Your task to perform on an android device: change the upload size in google photos Image 0: 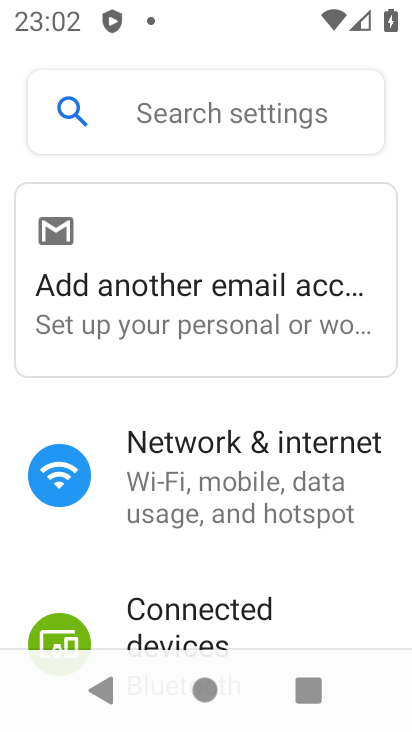
Step 0: drag from (246, 538) to (273, 42)
Your task to perform on an android device: change the upload size in google photos Image 1: 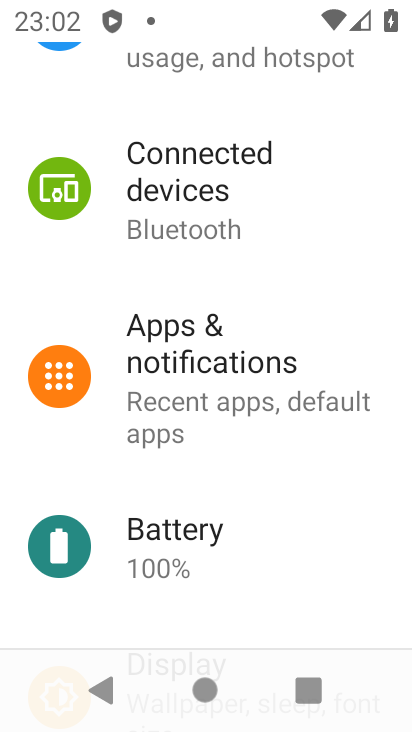
Step 1: drag from (206, 536) to (280, 356)
Your task to perform on an android device: change the upload size in google photos Image 2: 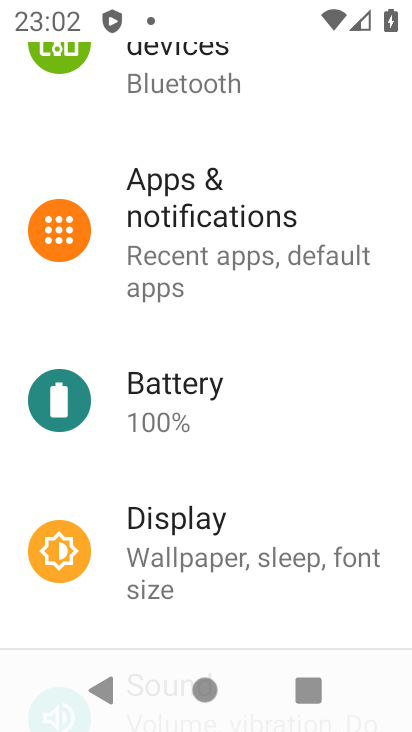
Step 2: drag from (187, 606) to (300, 263)
Your task to perform on an android device: change the upload size in google photos Image 3: 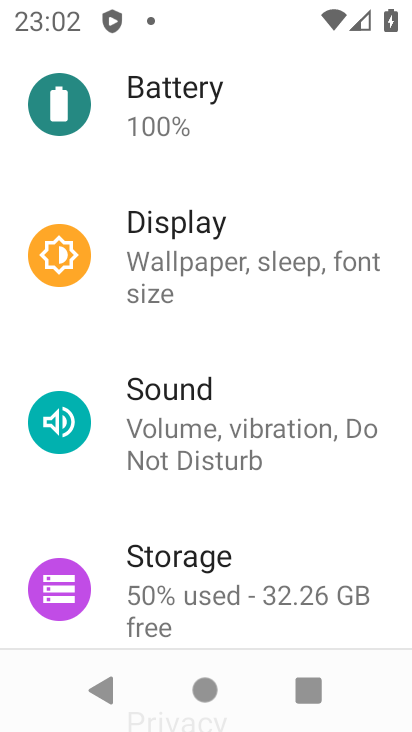
Step 3: press home button
Your task to perform on an android device: change the upload size in google photos Image 4: 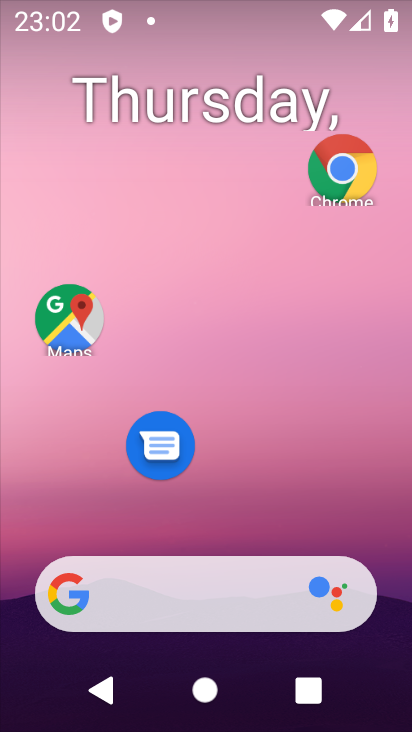
Step 4: drag from (203, 513) to (203, 180)
Your task to perform on an android device: change the upload size in google photos Image 5: 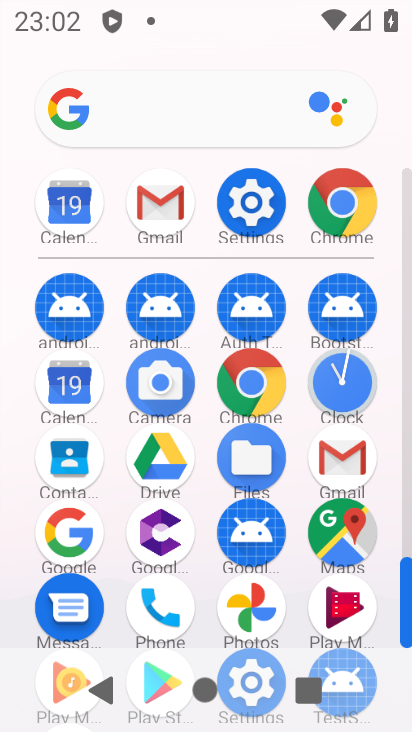
Step 5: drag from (212, 630) to (204, 347)
Your task to perform on an android device: change the upload size in google photos Image 6: 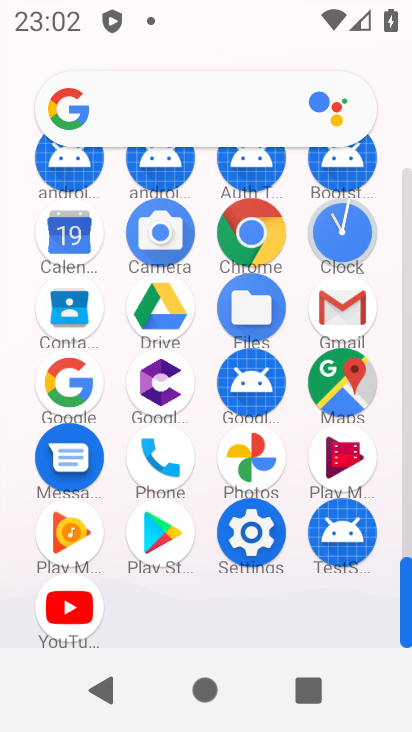
Step 6: click (266, 460)
Your task to perform on an android device: change the upload size in google photos Image 7: 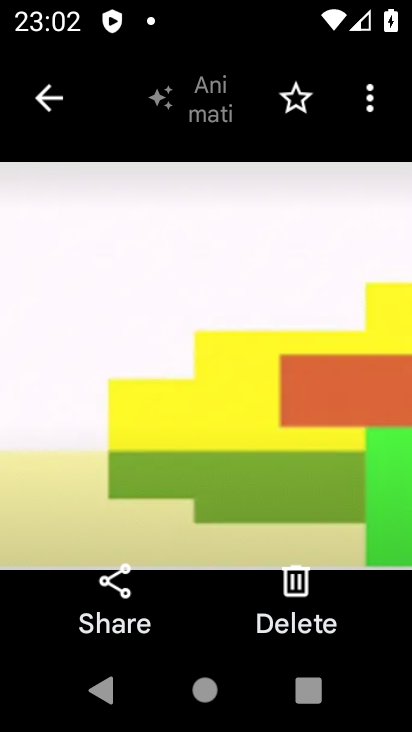
Step 7: drag from (208, 525) to (215, 198)
Your task to perform on an android device: change the upload size in google photos Image 8: 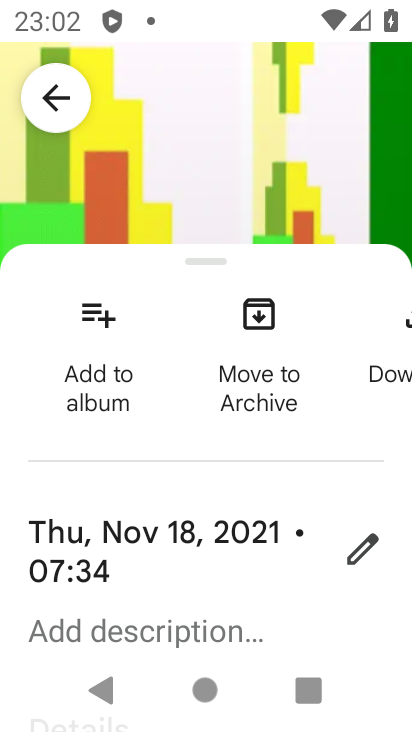
Step 8: press back button
Your task to perform on an android device: change the upload size in google photos Image 9: 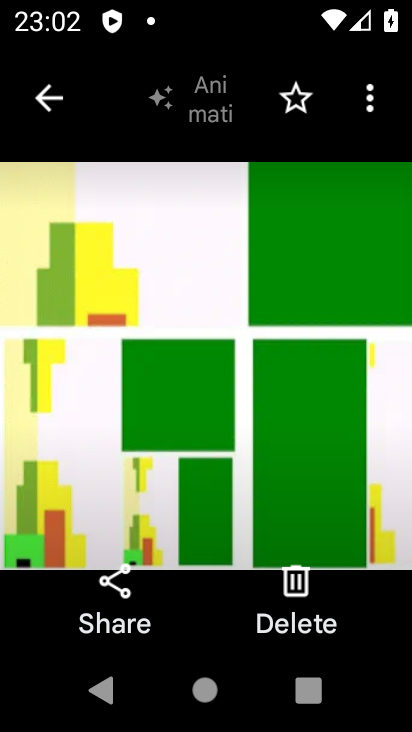
Step 9: press back button
Your task to perform on an android device: change the upload size in google photos Image 10: 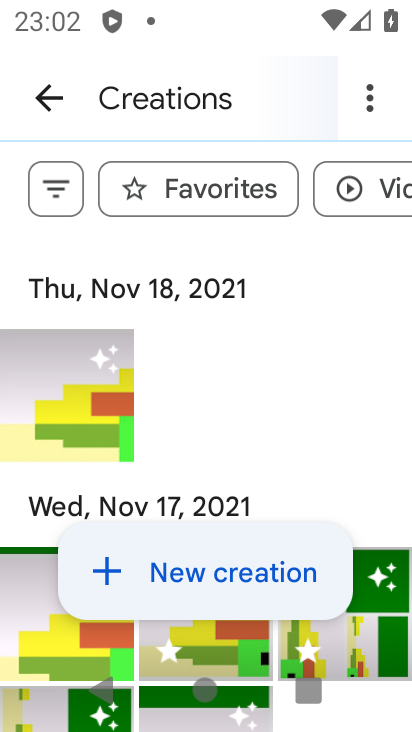
Step 10: drag from (216, 546) to (304, 3)
Your task to perform on an android device: change the upload size in google photos Image 11: 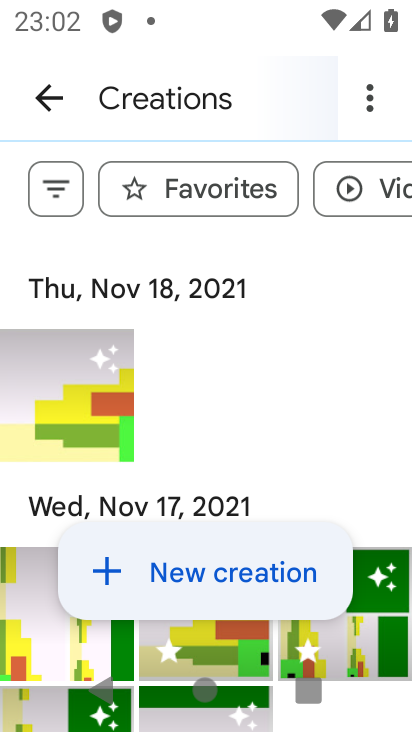
Step 11: drag from (251, 451) to (296, 95)
Your task to perform on an android device: change the upload size in google photos Image 12: 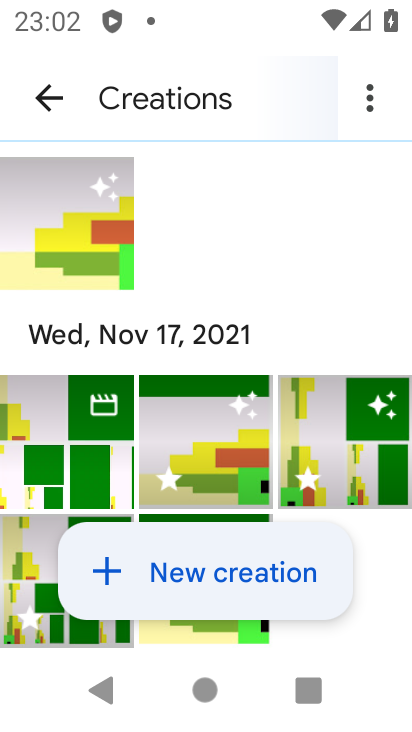
Step 12: drag from (239, 495) to (315, 145)
Your task to perform on an android device: change the upload size in google photos Image 13: 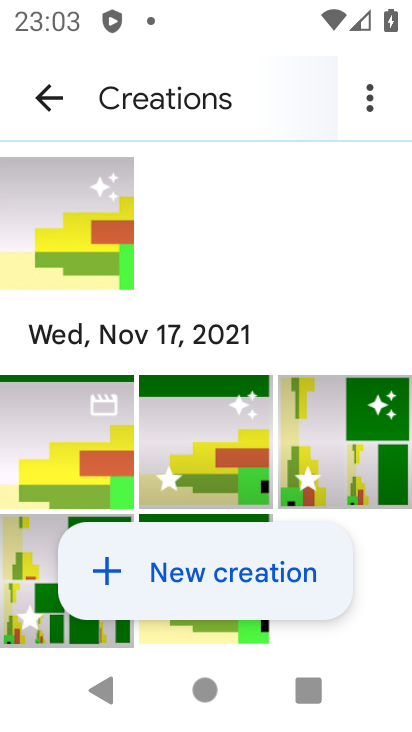
Step 13: click (54, 93)
Your task to perform on an android device: change the upload size in google photos Image 14: 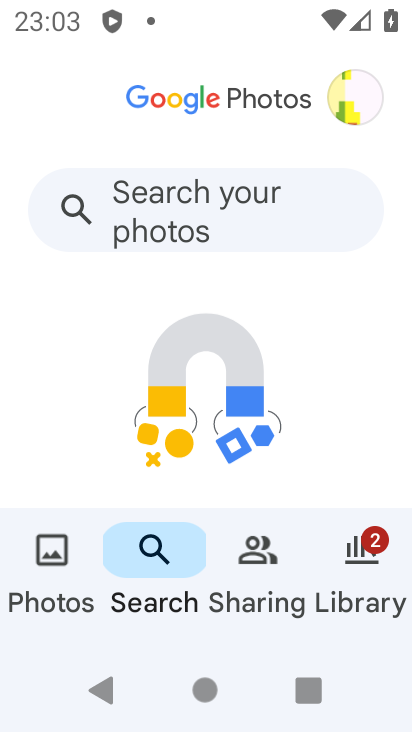
Step 14: click (355, 562)
Your task to perform on an android device: change the upload size in google photos Image 15: 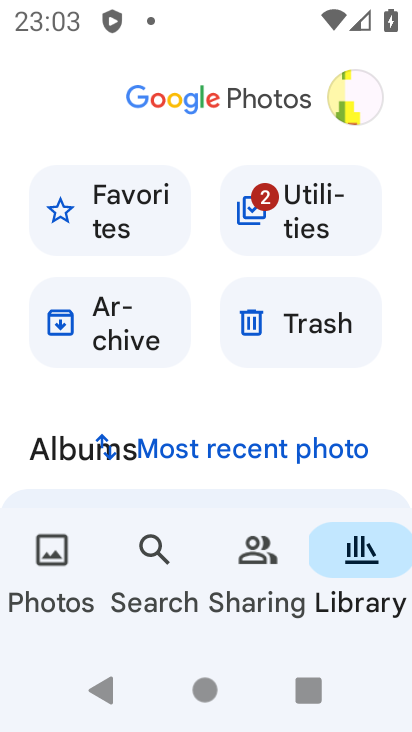
Step 15: click (352, 120)
Your task to perform on an android device: change the upload size in google photos Image 16: 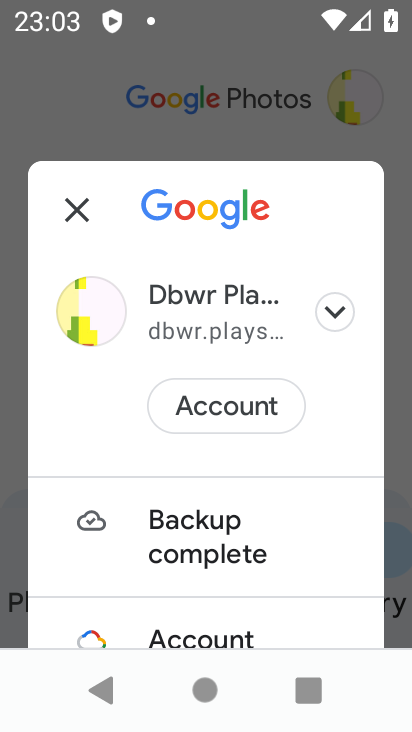
Step 16: drag from (197, 555) to (252, 190)
Your task to perform on an android device: change the upload size in google photos Image 17: 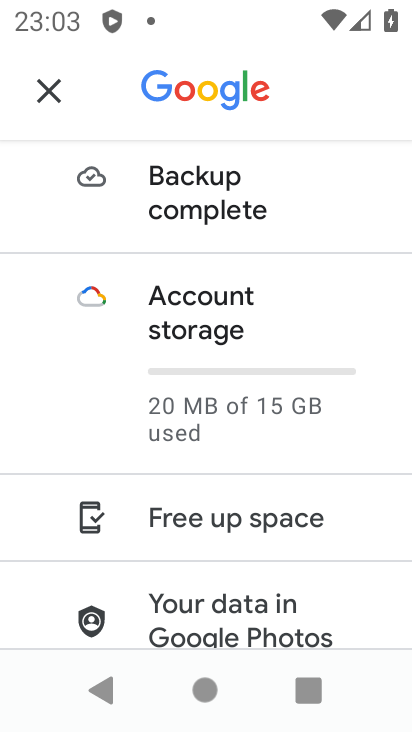
Step 17: drag from (214, 544) to (299, 153)
Your task to perform on an android device: change the upload size in google photos Image 18: 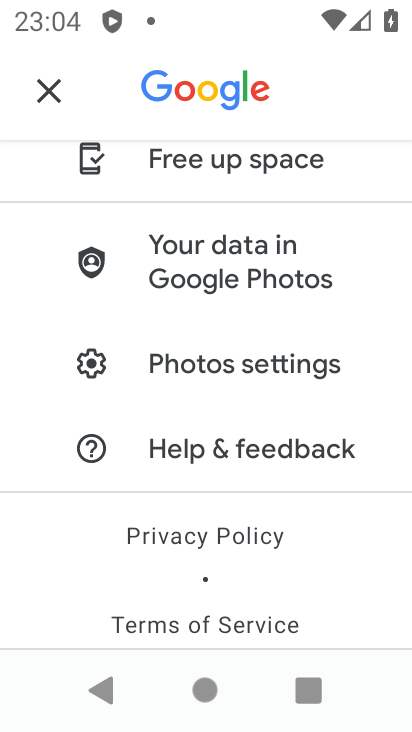
Step 18: click (223, 362)
Your task to perform on an android device: change the upload size in google photos Image 19: 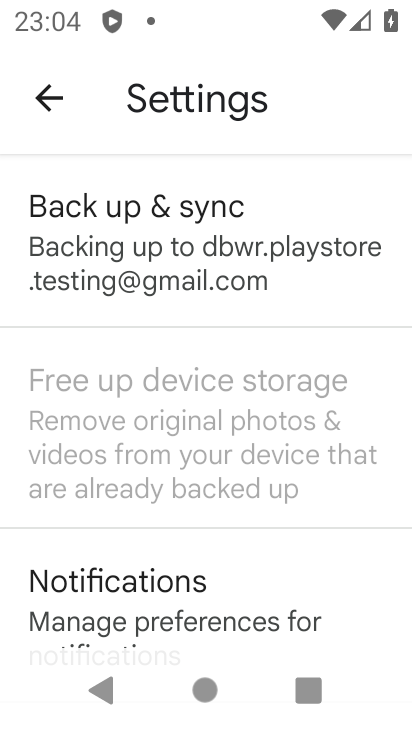
Step 19: click (225, 258)
Your task to perform on an android device: change the upload size in google photos Image 20: 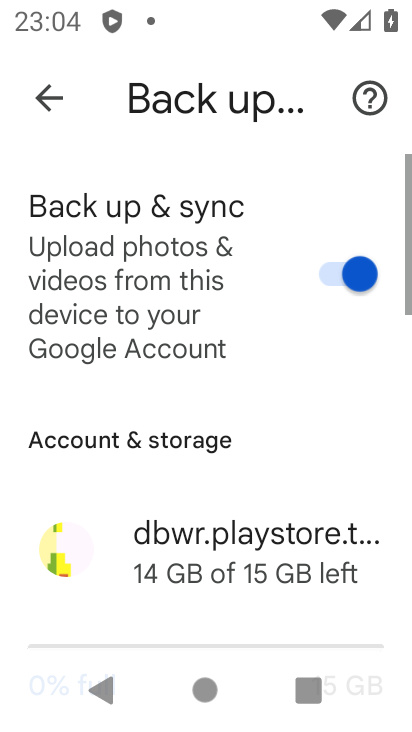
Step 20: drag from (233, 520) to (234, 116)
Your task to perform on an android device: change the upload size in google photos Image 21: 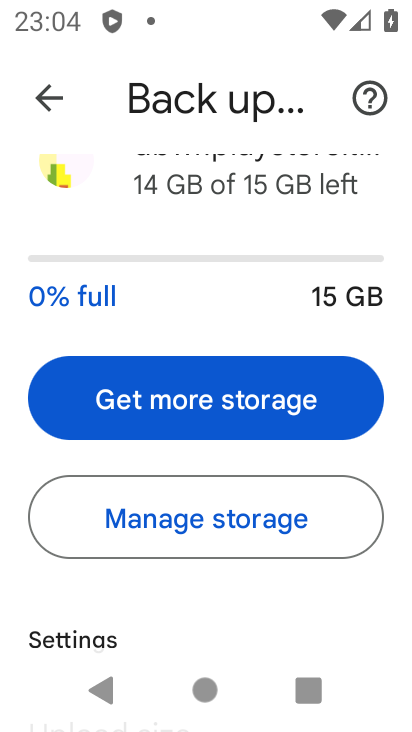
Step 21: drag from (249, 252) to (251, 731)
Your task to perform on an android device: change the upload size in google photos Image 22: 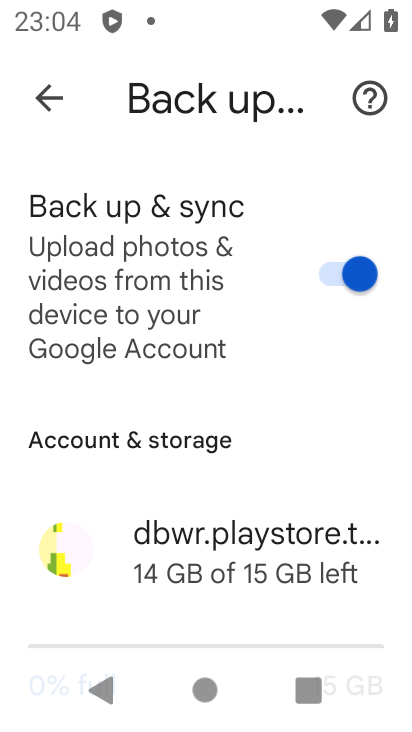
Step 22: drag from (223, 481) to (291, 10)
Your task to perform on an android device: change the upload size in google photos Image 23: 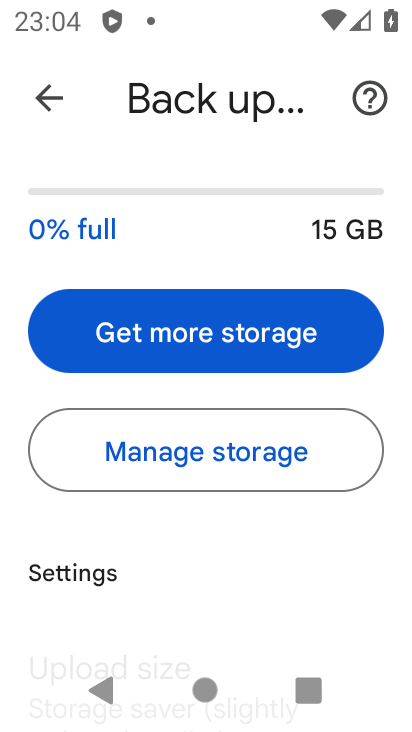
Step 23: drag from (207, 519) to (330, 125)
Your task to perform on an android device: change the upload size in google photos Image 24: 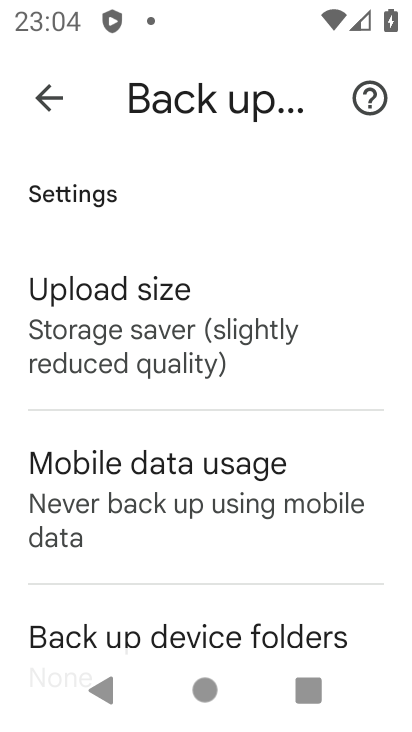
Step 24: click (135, 290)
Your task to perform on an android device: change the upload size in google photos Image 25: 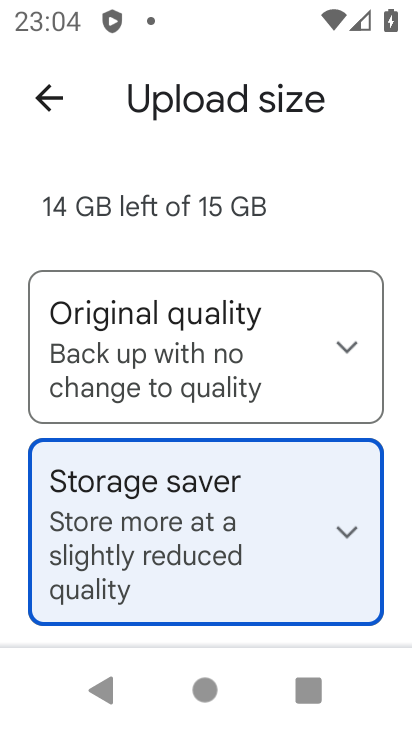
Step 25: drag from (237, 456) to (294, 23)
Your task to perform on an android device: change the upload size in google photos Image 26: 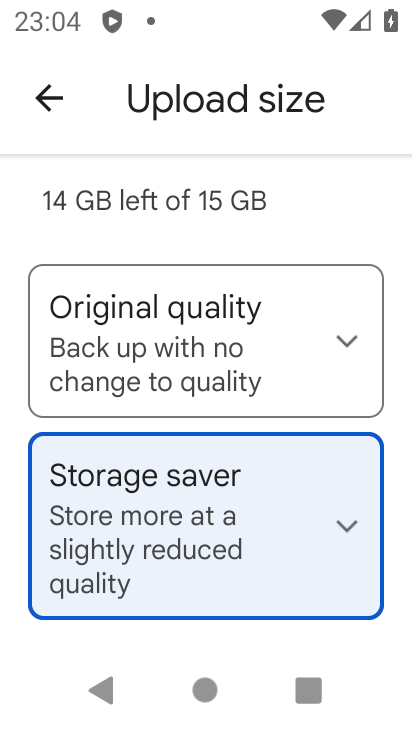
Step 26: drag from (221, 592) to (351, 214)
Your task to perform on an android device: change the upload size in google photos Image 27: 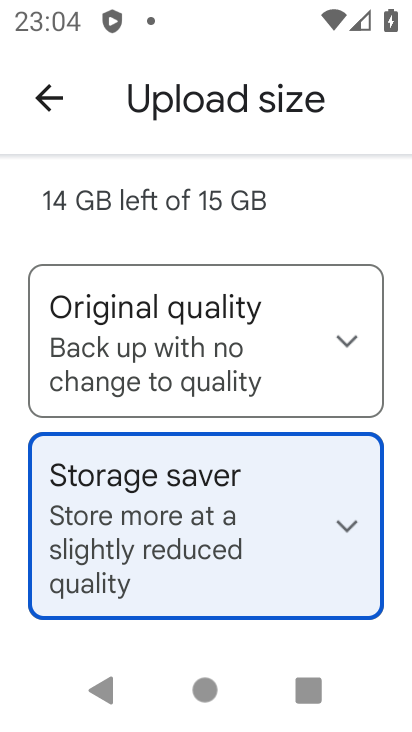
Step 27: click (212, 338)
Your task to perform on an android device: change the upload size in google photos Image 28: 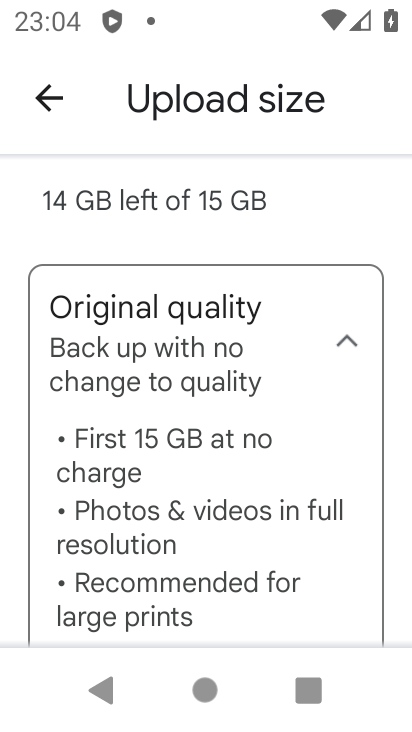
Step 28: drag from (146, 525) to (275, 68)
Your task to perform on an android device: change the upload size in google photos Image 29: 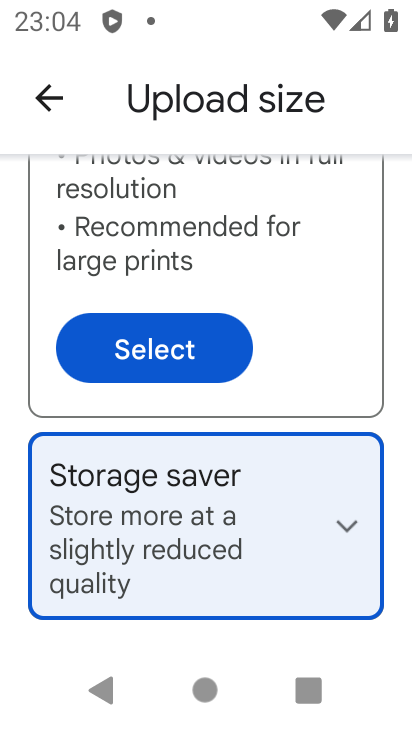
Step 29: click (132, 352)
Your task to perform on an android device: change the upload size in google photos Image 30: 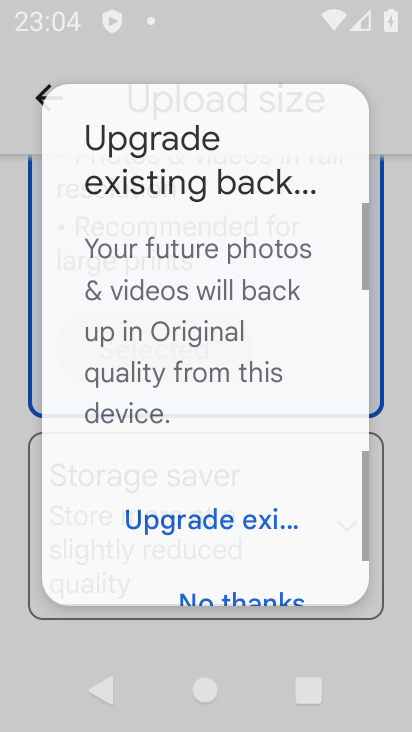
Step 30: task complete